Your task to perform on an android device: open wifi settings Image 0: 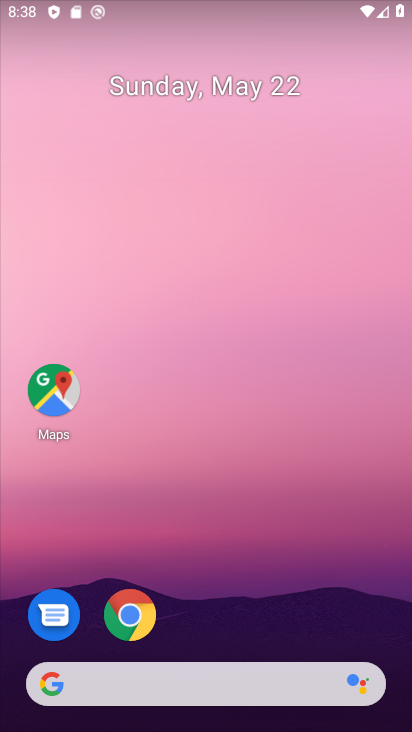
Step 0: drag from (253, 477) to (288, 222)
Your task to perform on an android device: open wifi settings Image 1: 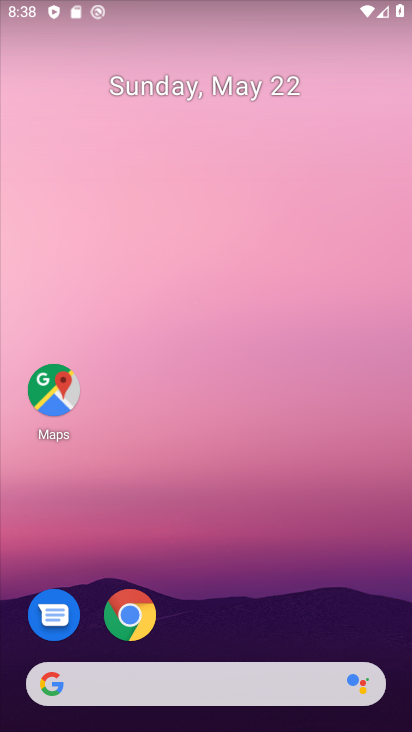
Step 1: drag from (274, 535) to (247, 127)
Your task to perform on an android device: open wifi settings Image 2: 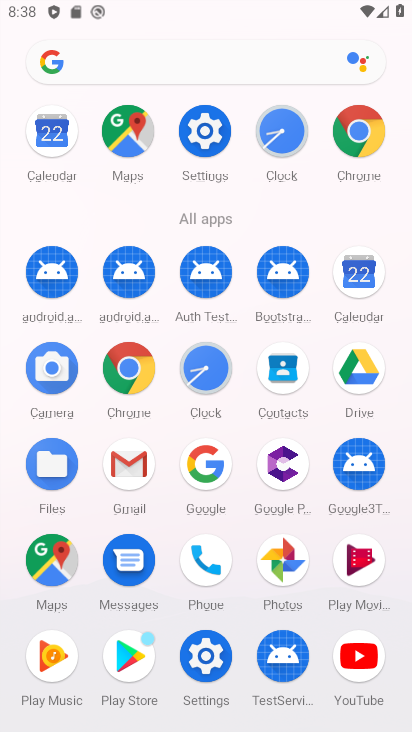
Step 2: click (201, 137)
Your task to perform on an android device: open wifi settings Image 3: 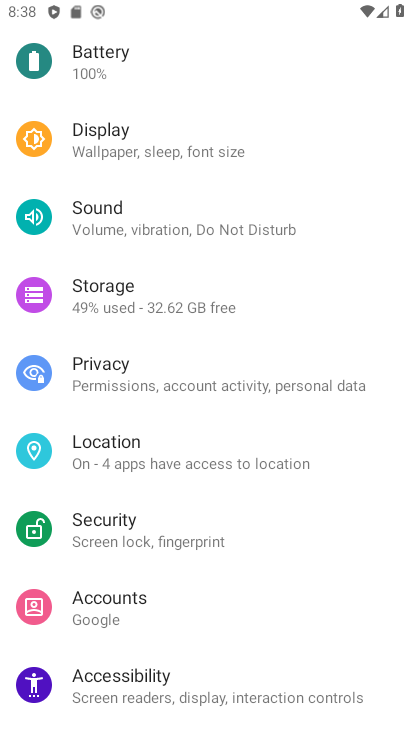
Step 3: drag from (184, 141) to (187, 560)
Your task to perform on an android device: open wifi settings Image 4: 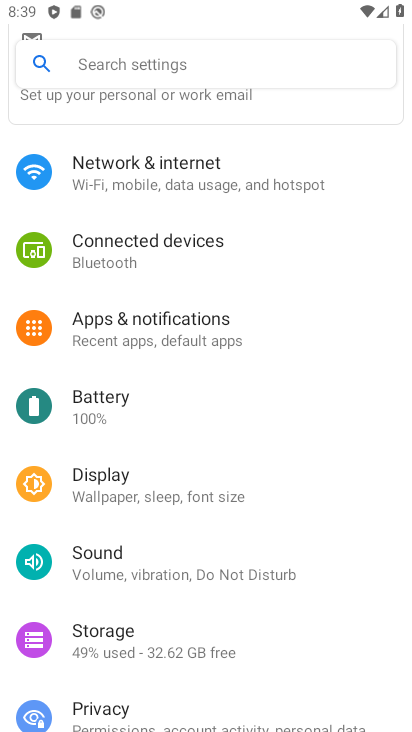
Step 4: click (183, 168)
Your task to perform on an android device: open wifi settings Image 5: 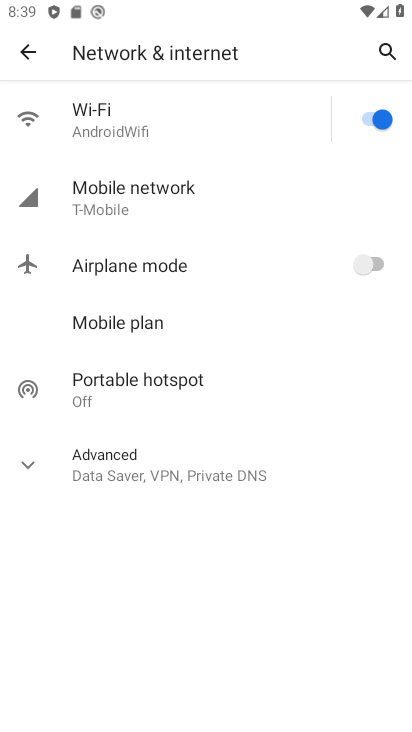
Step 5: task complete